Your task to perform on an android device: turn on wifi Image 0: 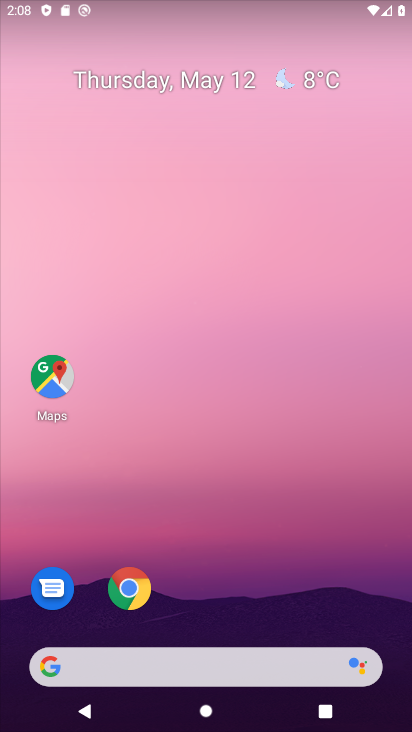
Step 0: drag from (320, 597) to (312, 156)
Your task to perform on an android device: turn on wifi Image 1: 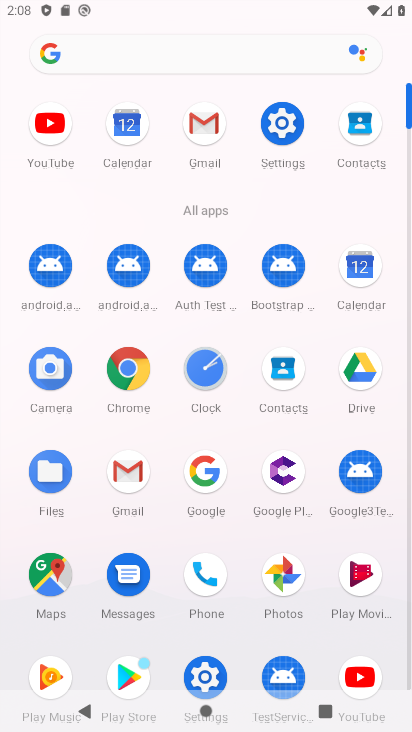
Step 1: click (284, 154)
Your task to perform on an android device: turn on wifi Image 2: 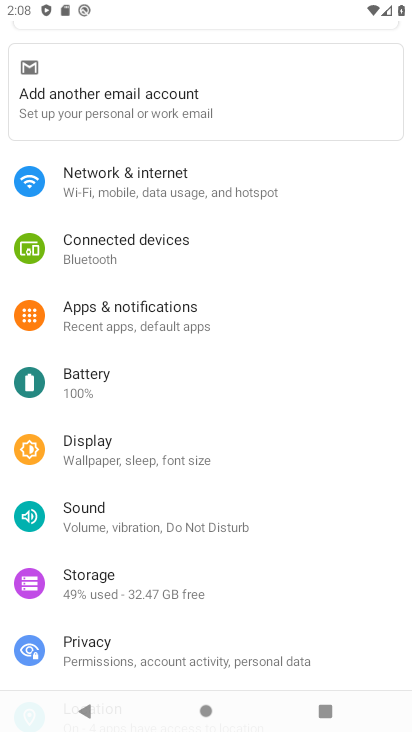
Step 2: click (190, 180)
Your task to perform on an android device: turn on wifi Image 3: 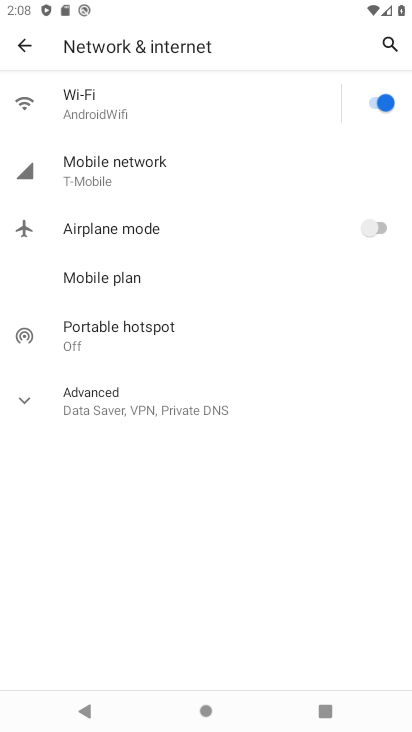
Step 3: task complete